Your task to perform on an android device: Go to wifi settings Image 0: 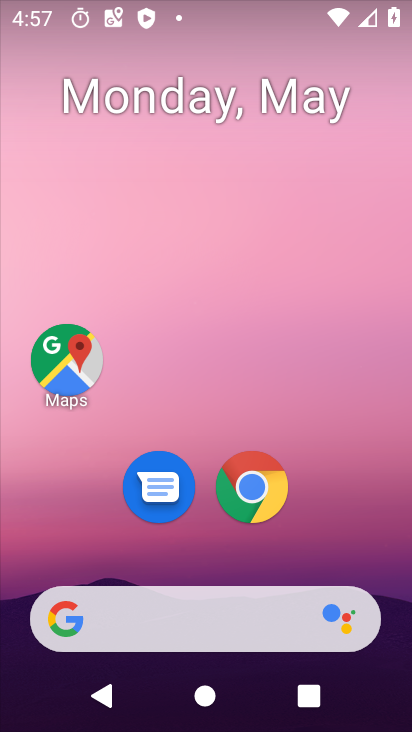
Step 0: drag from (285, 584) to (331, 30)
Your task to perform on an android device: Go to wifi settings Image 1: 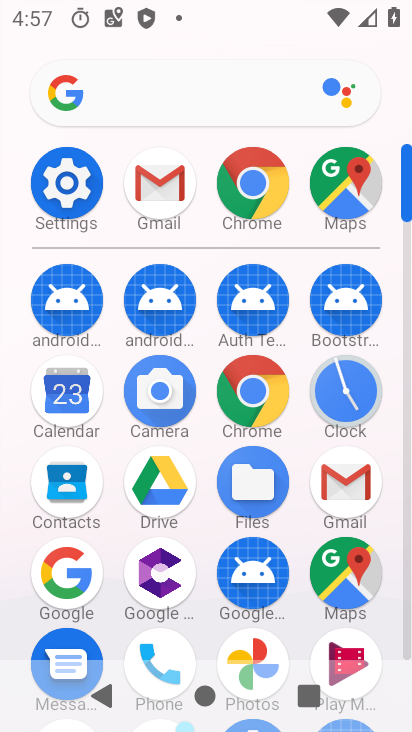
Step 1: click (81, 182)
Your task to perform on an android device: Go to wifi settings Image 2: 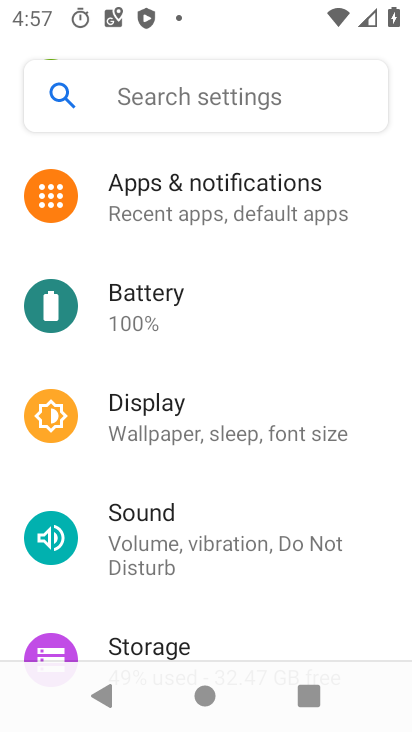
Step 2: drag from (223, 209) to (199, 520)
Your task to perform on an android device: Go to wifi settings Image 3: 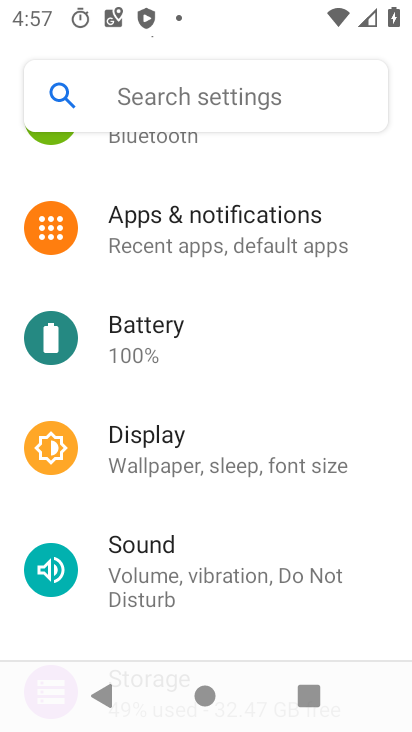
Step 3: drag from (260, 178) to (238, 543)
Your task to perform on an android device: Go to wifi settings Image 4: 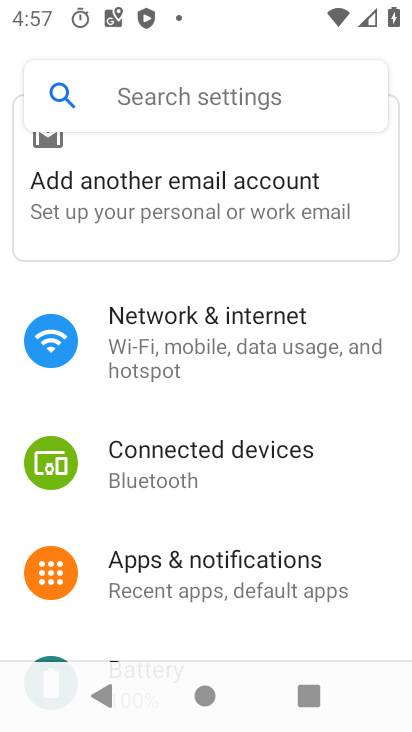
Step 4: click (218, 357)
Your task to perform on an android device: Go to wifi settings Image 5: 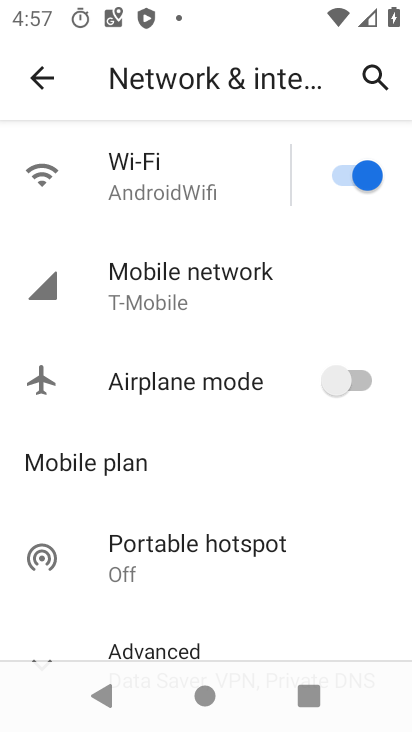
Step 5: click (140, 174)
Your task to perform on an android device: Go to wifi settings Image 6: 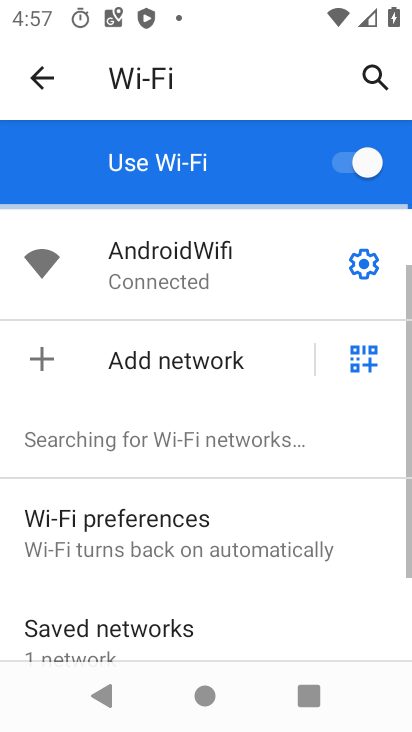
Step 6: click (361, 264)
Your task to perform on an android device: Go to wifi settings Image 7: 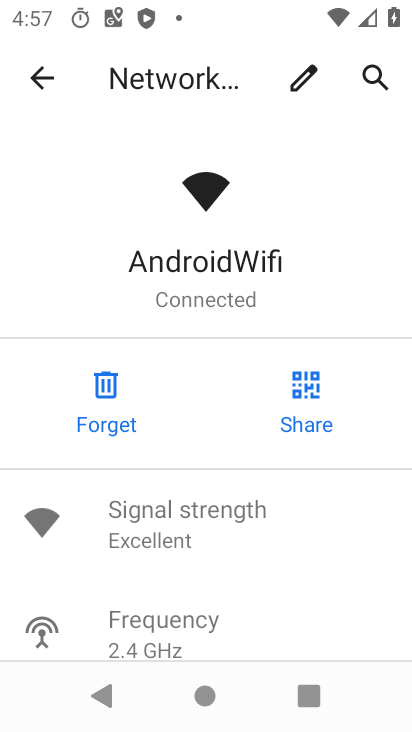
Step 7: task complete